Your task to perform on an android device: Open sound settings Image 0: 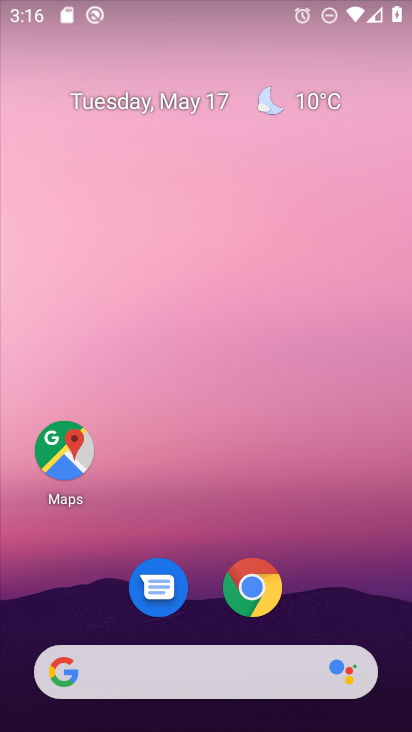
Step 0: drag from (338, 520) to (213, 14)
Your task to perform on an android device: Open sound settings Image 1: 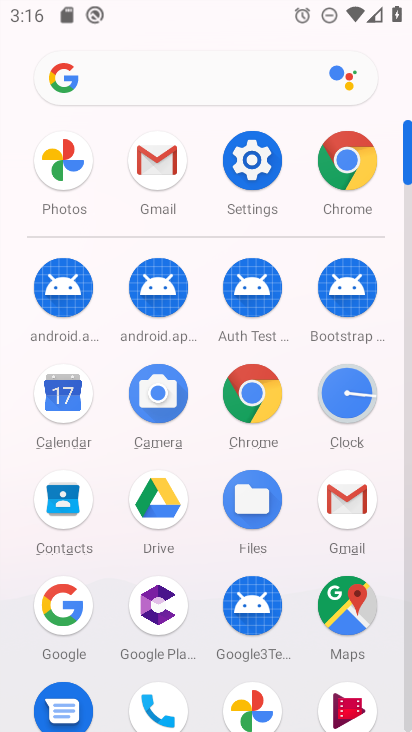
Step 1: drag from (13, 502) to (3, 182)
Your task to perform on an android device: Open sound settings Image 2: 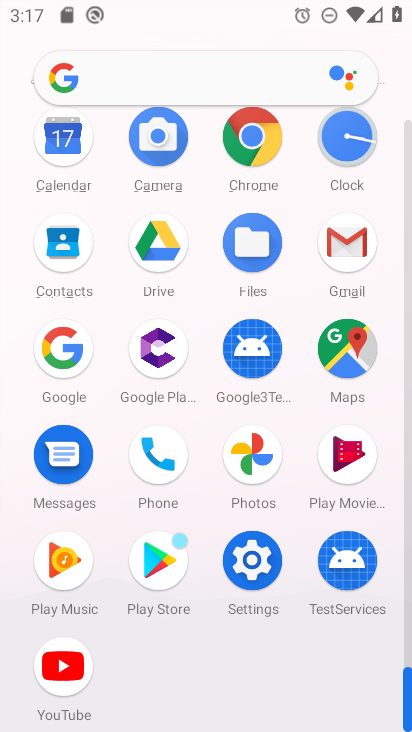
Step 2: click (252, 556)
Your task to perform on an android device: Open sound settings Image 3: 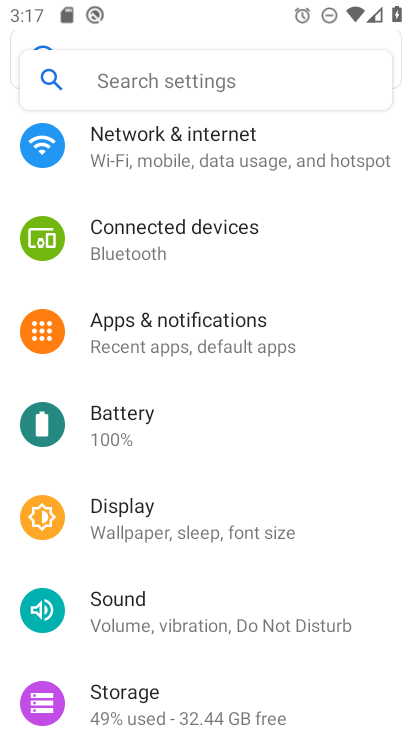
Step 3: drag from (283, 173) to (274, 583)
Your task to perform on an android device: Open sound settings Image 4: 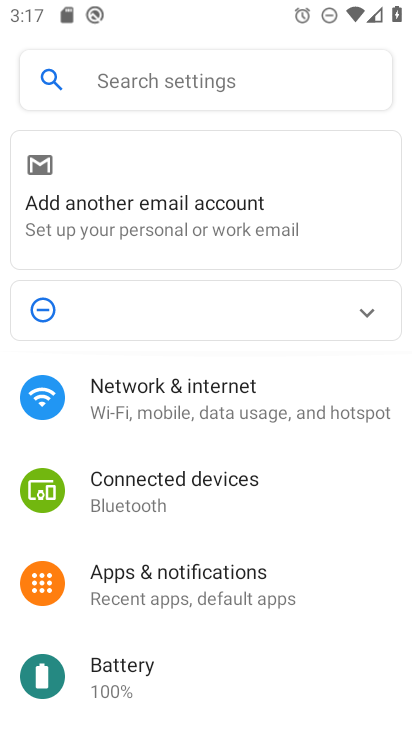
Step 4: drag from (269, 575) to (248, 134)
Your task to perform on an android device: Open sound settings Image 5: 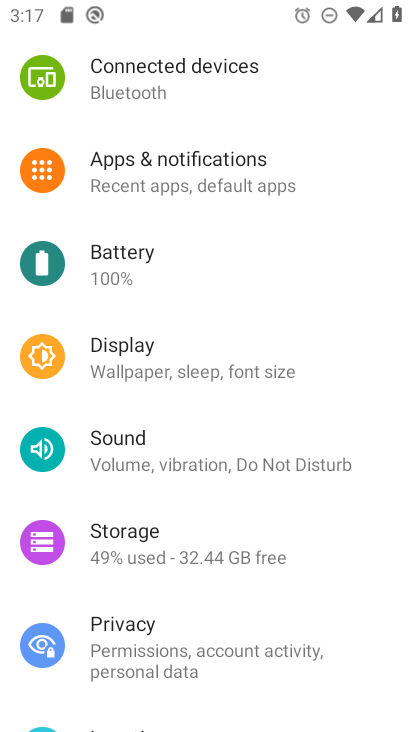
Step 5: drag from (267, 532) to (286, 174)
Your task to perform on an android device: Open sound settings Image 6: 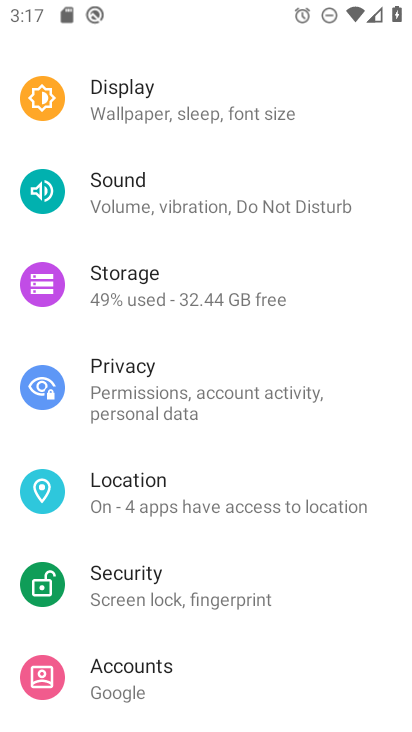
Step 6: click (160, 190)
Your task to perform on an android device: Open sound settings Image 7: 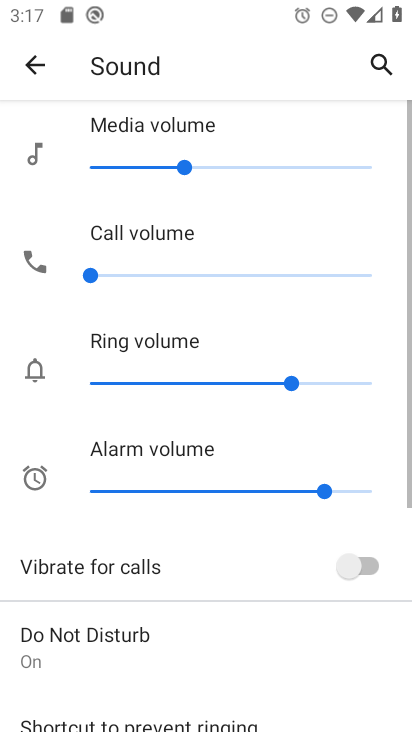
Step 7: drag from (187, 671) to (260, 118)
Your task to perform on an android device: Open sound settings Image 8: 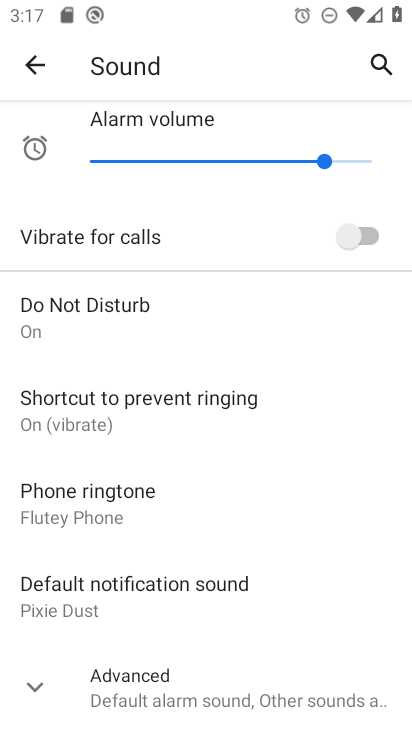
Step 8: click (17, 702)
Your task to perform on an android device: Open sound settings Image 9: 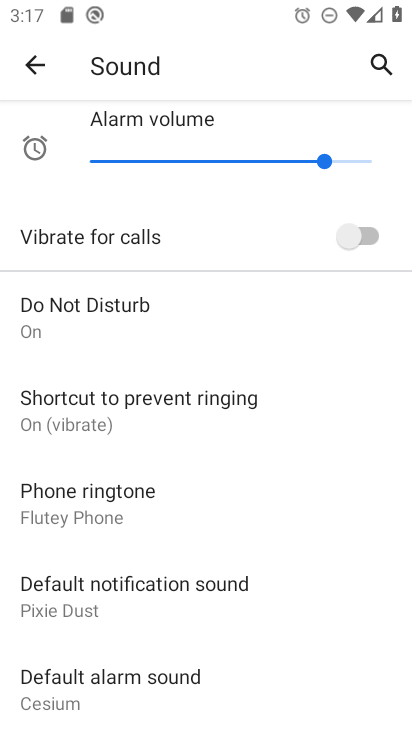
Step 9: task complete